Your task to perform on an android device: Open the calendar and show me this week's events? Image 0: 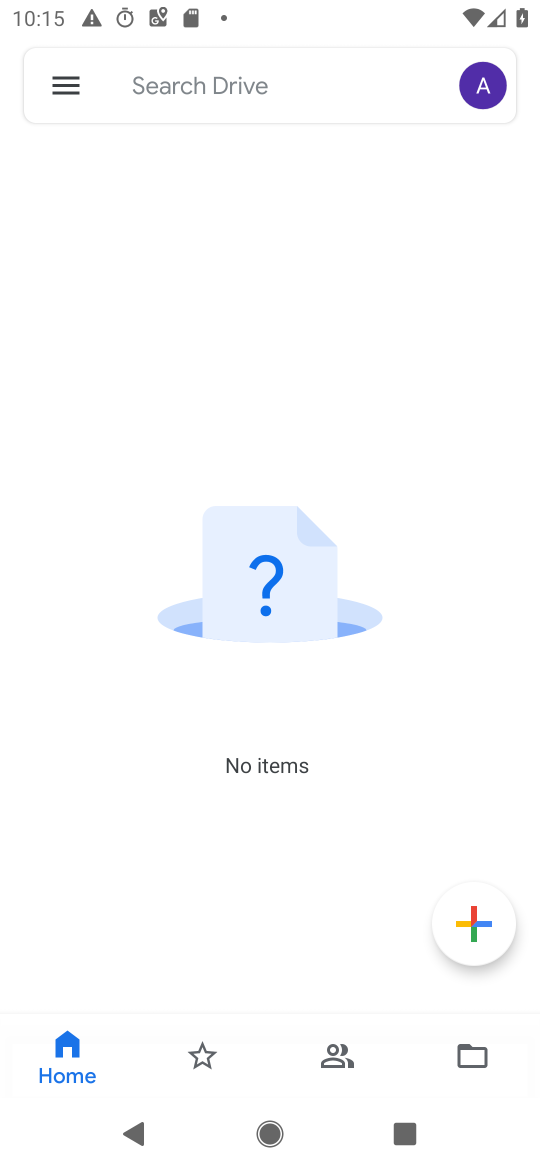
Step 0: press home button
Your task to perform on an android device: Open the calendar and show me this week's events? Image 1: 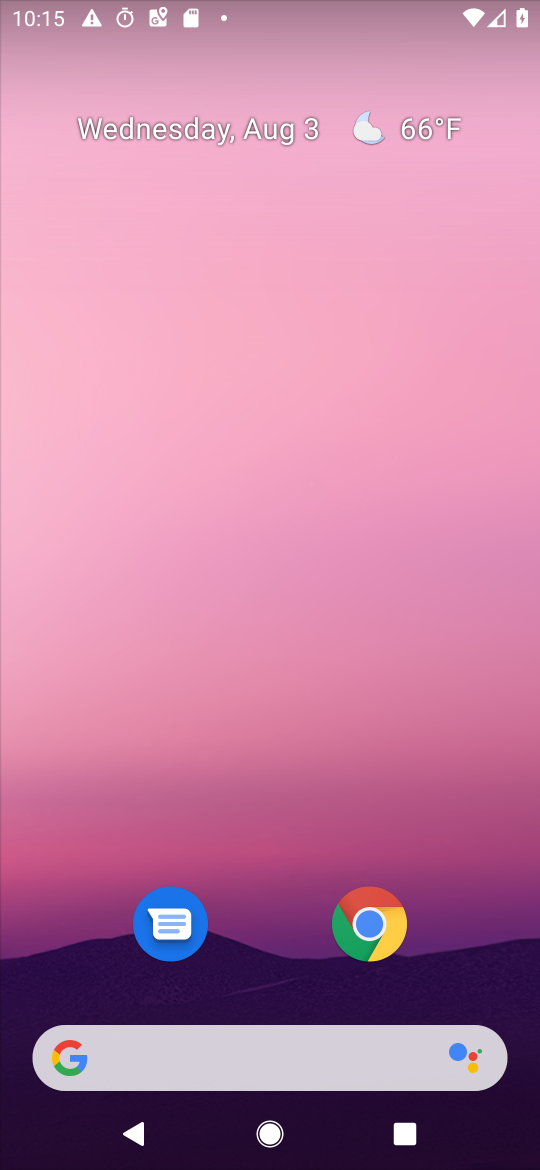
Step 1: drag from (279, 971) to (330, 110)
Your task to perform on an android device: Open the calendar and show me this week's events? Image 2: 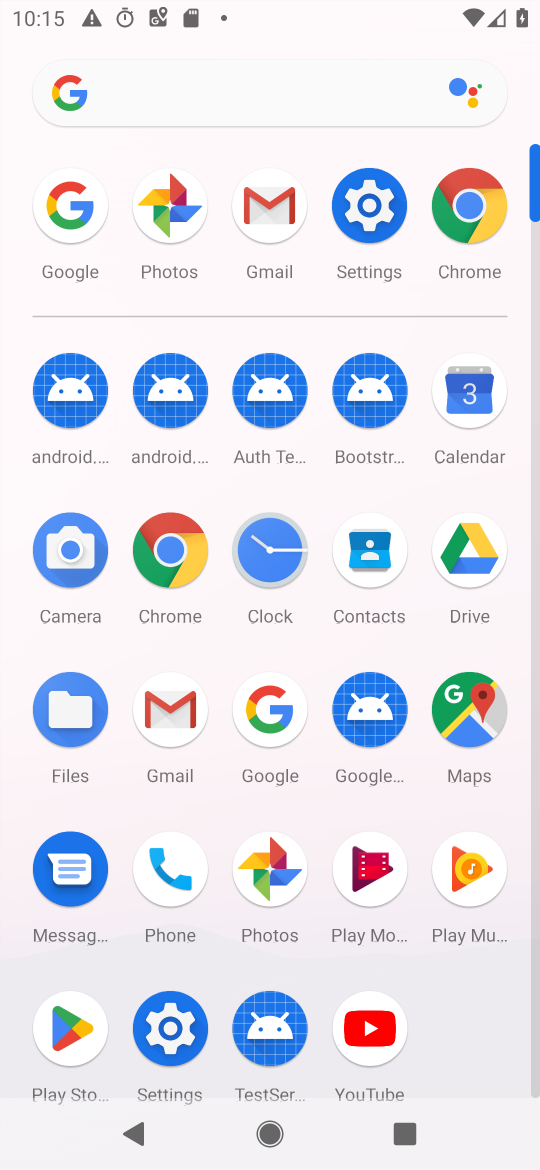
Step 2: click (467, 376)
Your task to perform on an android device: Open the calendar and show me this week's events? Image 3: 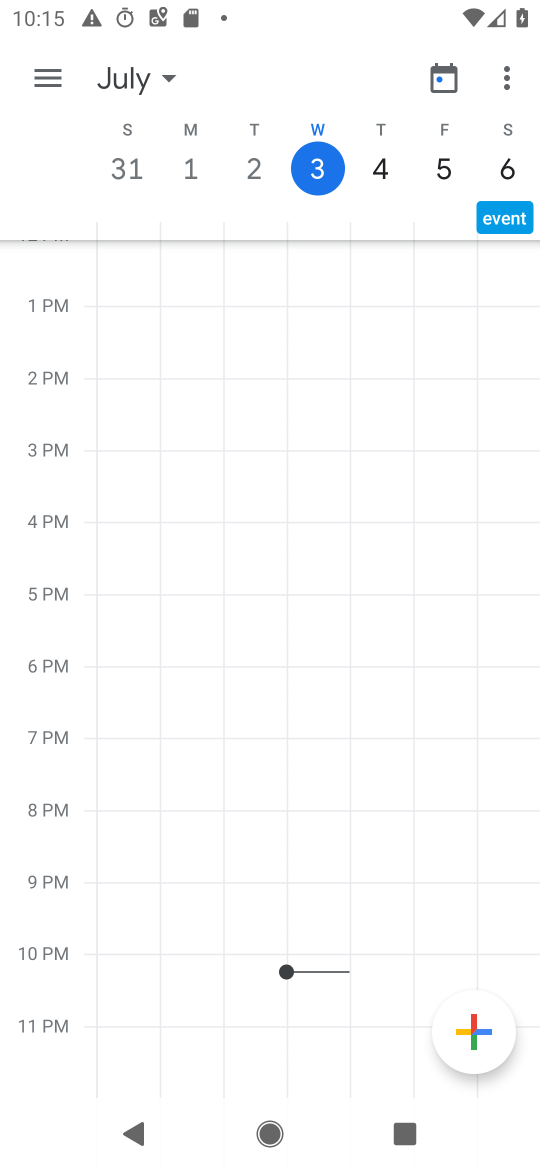
Step 3: drag from (503, 166) to (65, 150)
Your task to perform on an android device: Open the calendar and show me this week's events? Image 4: 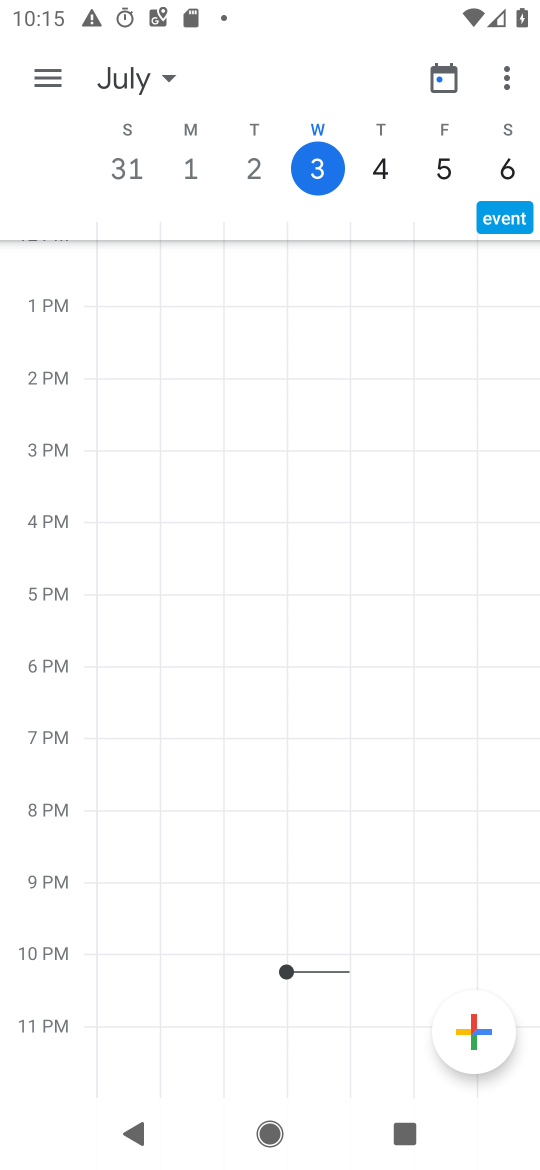
Step 4: click (48, 75)
Your task to perform on an android device: Open the calendar and show me this week's events? Image 5: 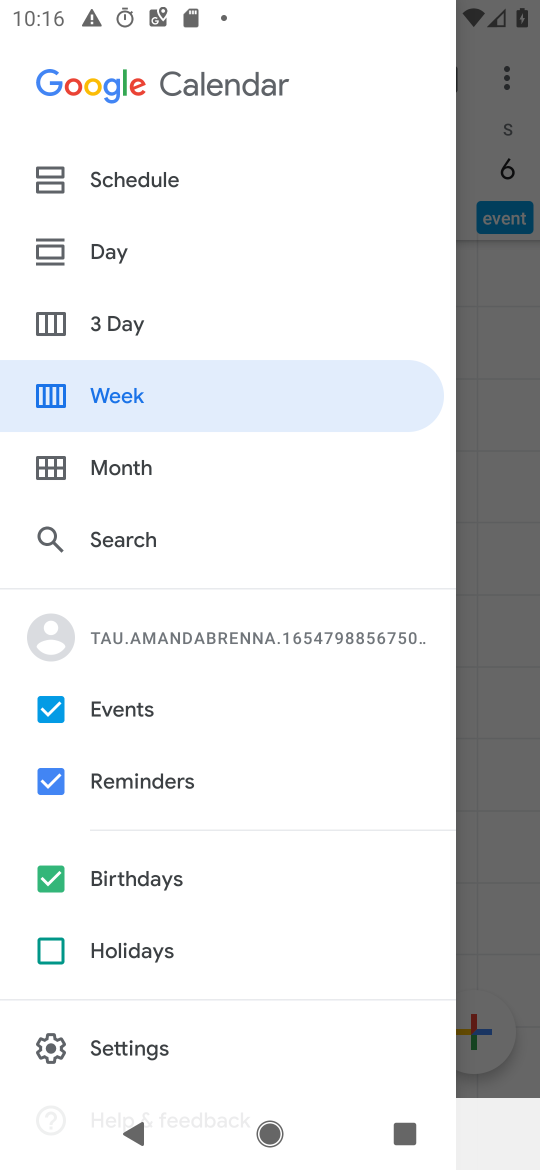
Step 5: click (45, 883)
Your task to perform on an android device: Open the calendar and show me this week's events? Image 6: 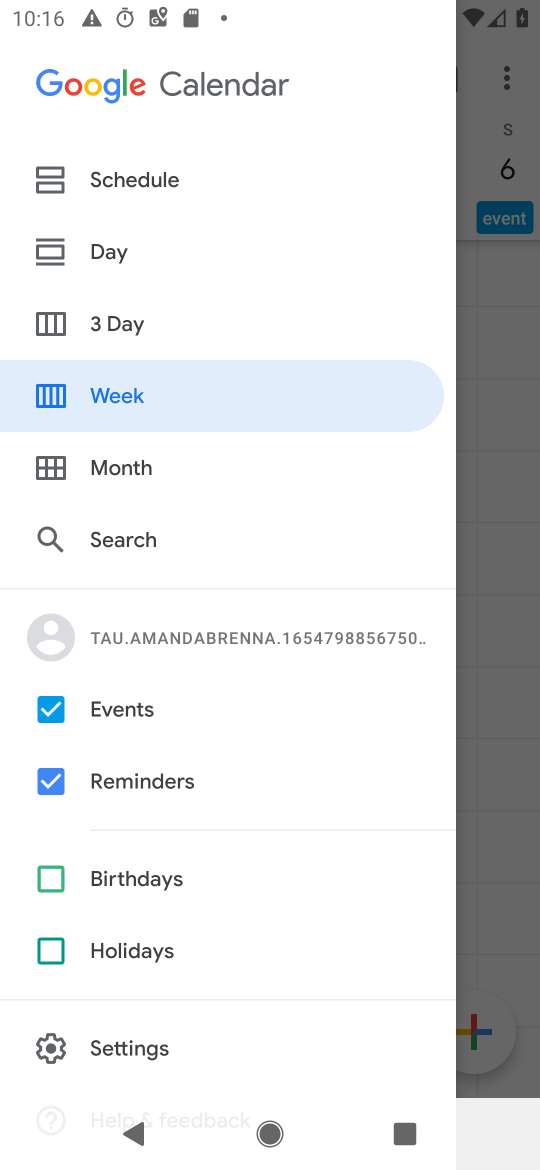
Step 6: click (51, 775)
Your task to perform on an android device: Open the calendar and show me this week's events? Image 7: 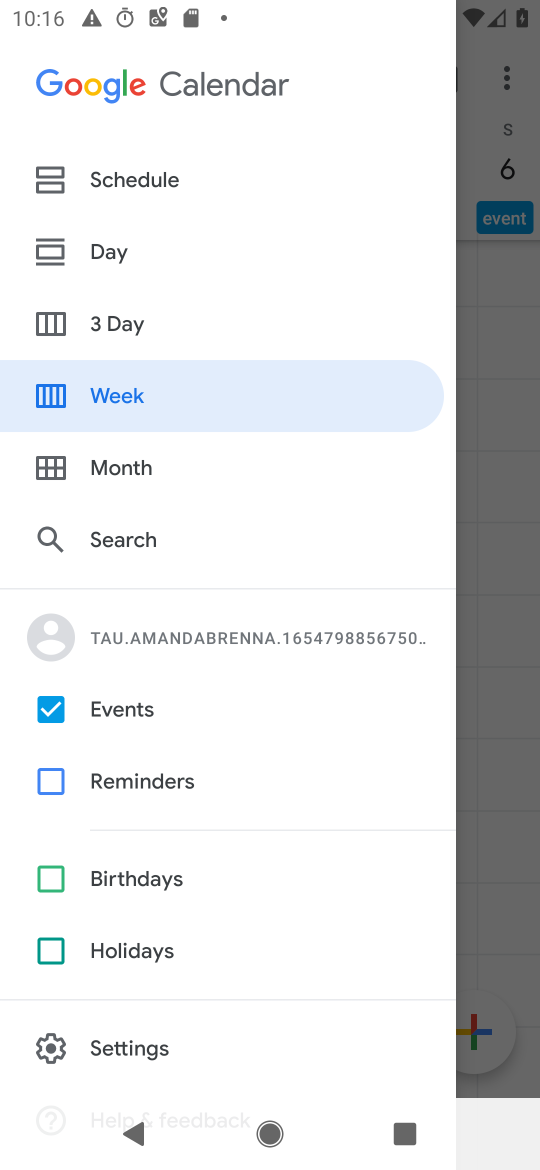
Step 7: click (113, 175)
Your task to perform on an android device: Open the calendar and show me this week's events? Image 8: 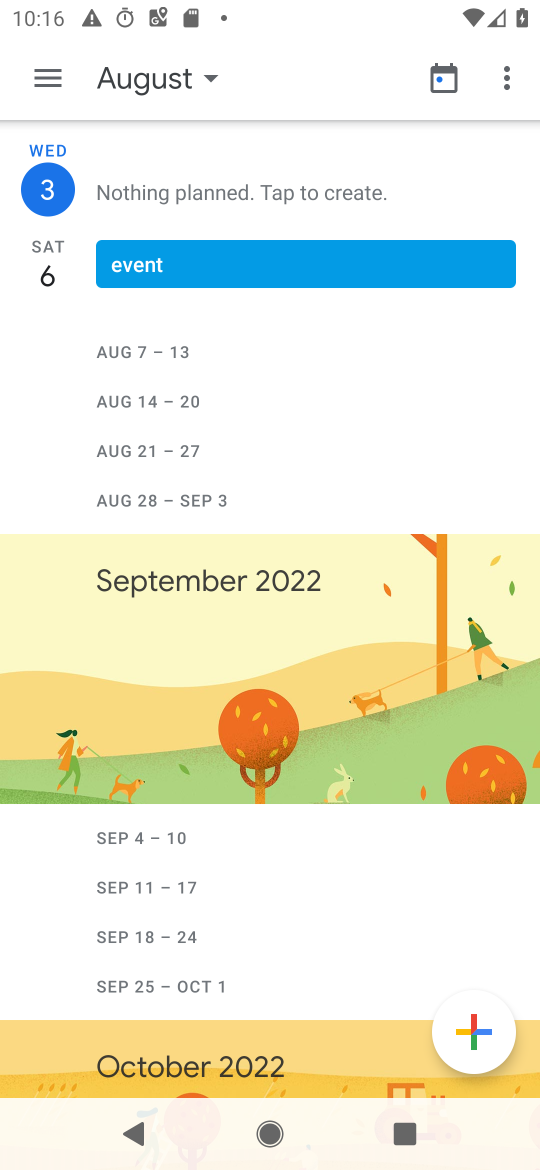
Step 8: task complete